Your task to perform on an android device: turn off smart reply in the gmail app Image 0: 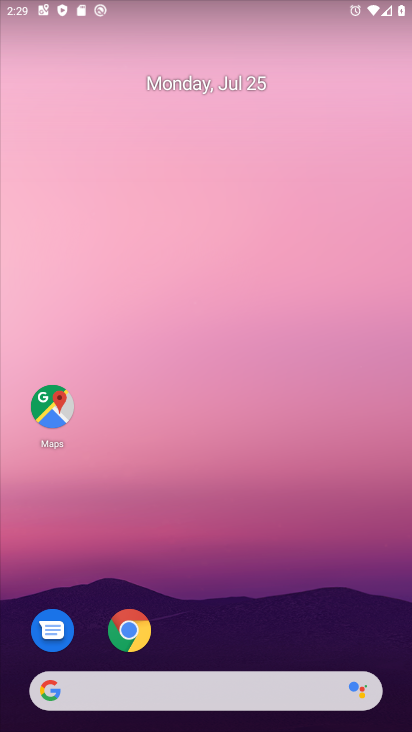
Step 0: drag from (302, 644) to (177, 108)
Your task to perform on an android device: turn off smart reply in the gmail app Image 1: 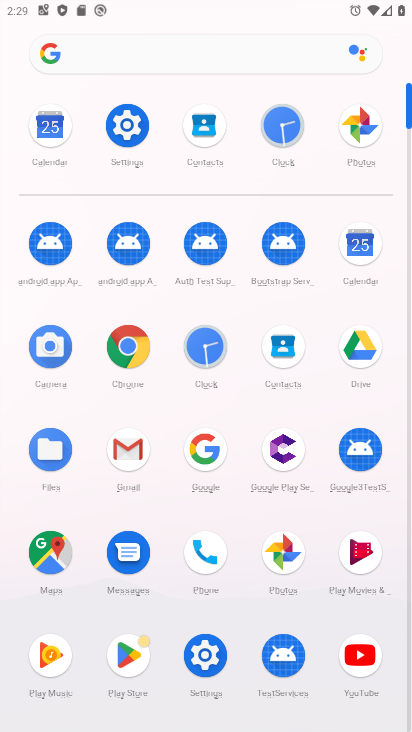
Step 1: click (143, 465)
Your task to perform on an android device: turn off smart reply in the gmail app Image 2: 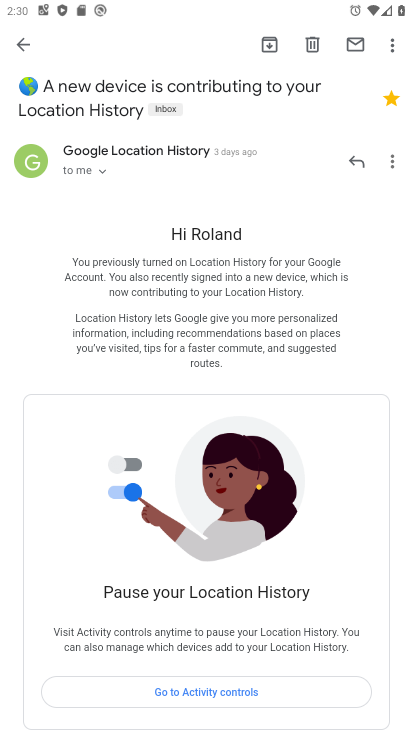
Step 2: click (25, 45)
Your task to perform on an android device: turn off smart reply in the gmail app Image 3: 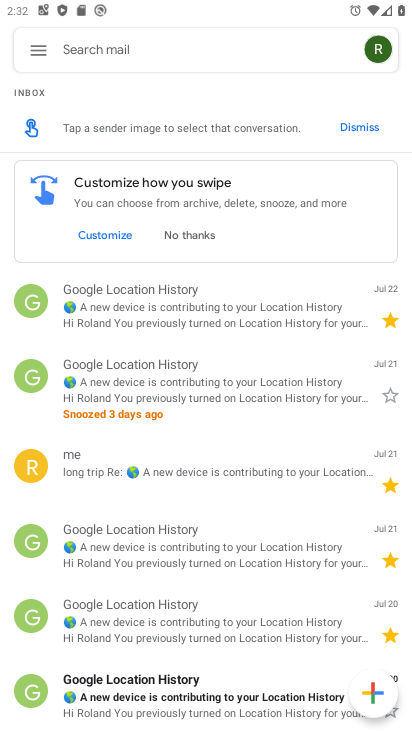
Step 3: task complete